Your task to perform on an android device: delete location history Image 0: 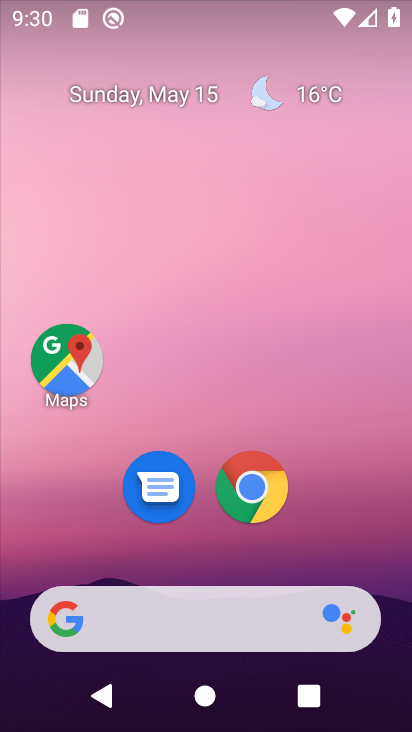
Step 0: drag from (323, 545) to (345, 47)
Your task to perform on an android device: delete location history Image 1: 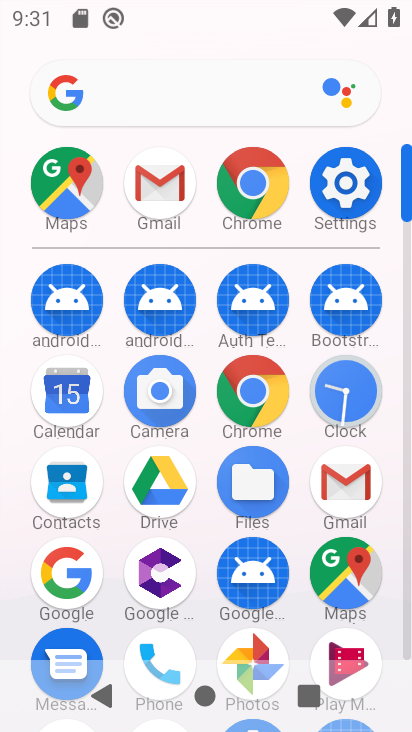
Step 1: click (331, 214)
Your task to perform on an android device: delete location history Image 2: 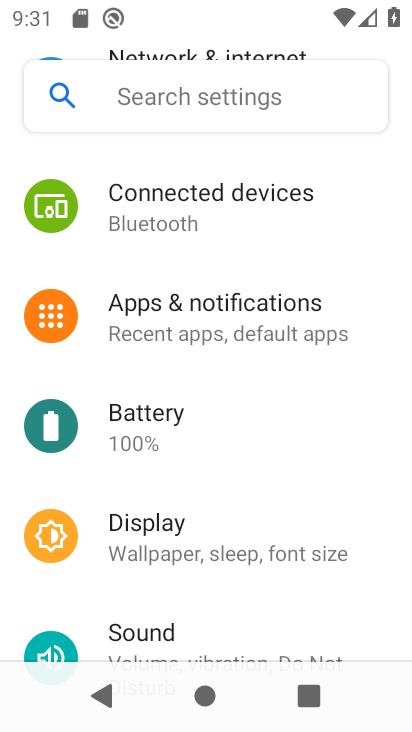
Step 2: drag from (325, 599) to (330, 296)
Your task to perform on an android device: delete location history Image 3: 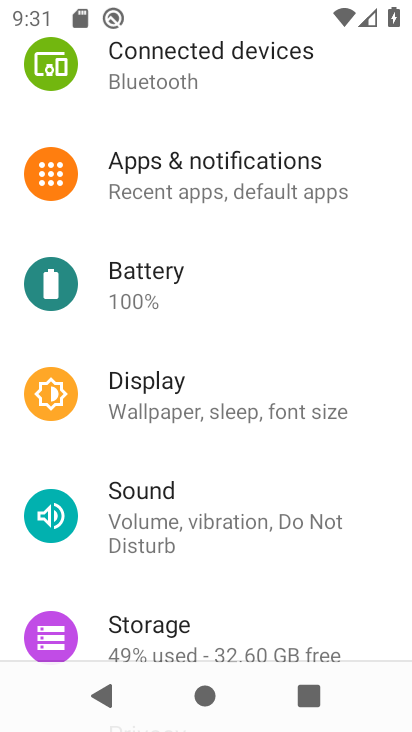
Step 3: drag from (329, 583) to (301, 309)
Your task to perform on an android device: delete location history Image 4: 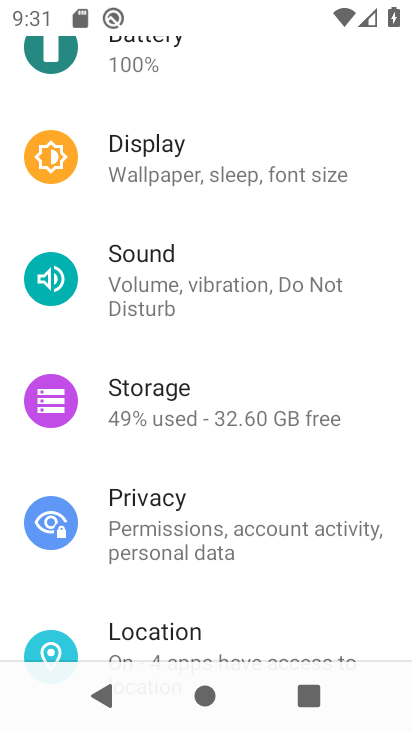
Step 4: drag from (351, 646) to (345, 260)
Your task to perform on an android device: delete location history Image 5: 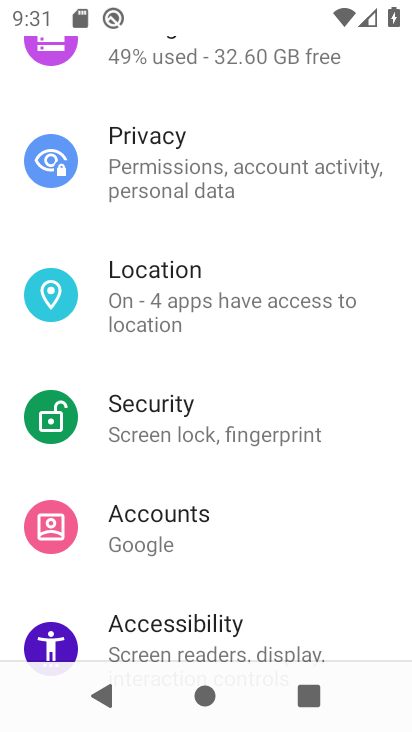
Step 5: click (322, 315)
Your task to perform on an android device: delete location history Image 6: 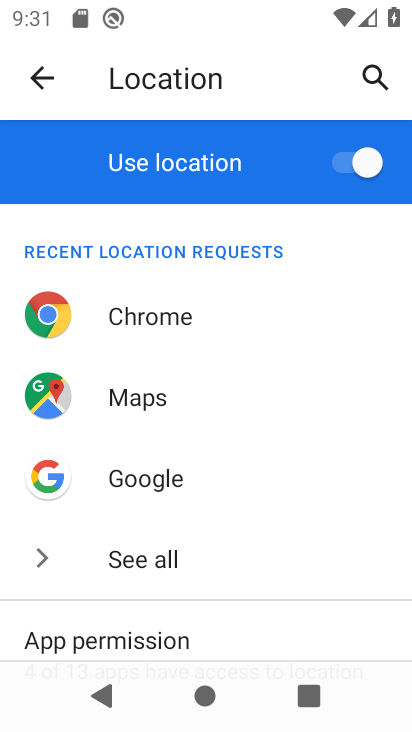
Step 6: drag from (286, 586) to (275, 336)
Your task to perform on an android device: delete location history Image 7: 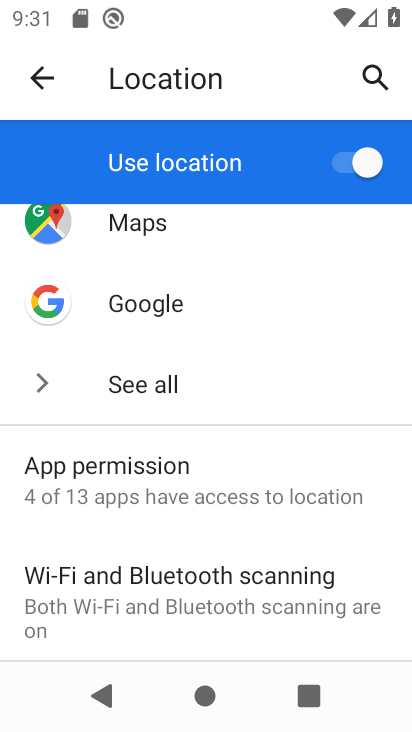
Step 7: drag from (275, 606) to (299, 180)
Your task to perform on an android device: delete location history Image 8: 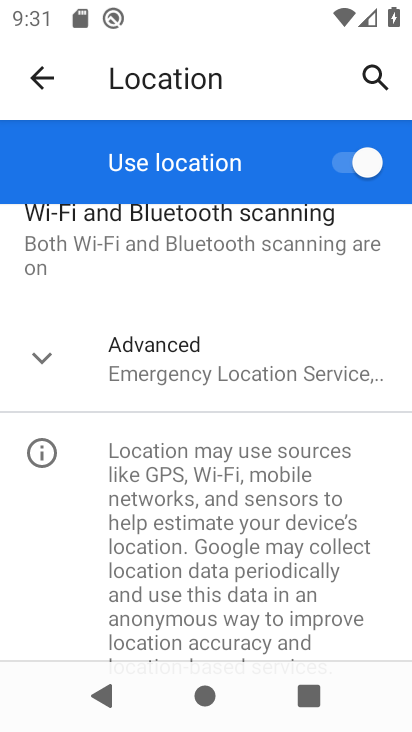
Step 8: click (273, 405)
Your task to perform on an android device: delete location history Image 9: 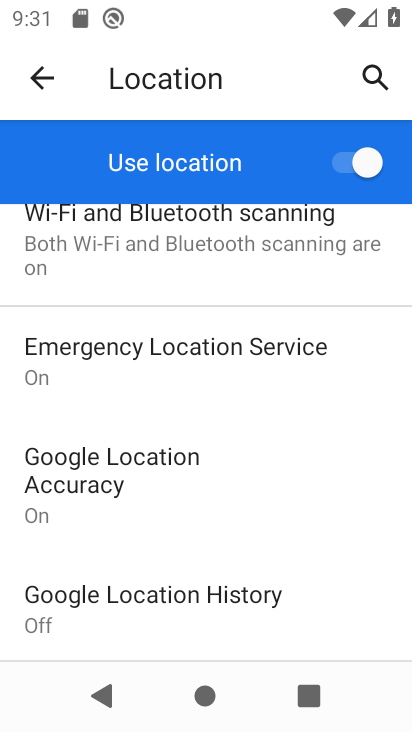
Step 9: drag from (293, 564) to (304, 280)
Your task to perform on an android device: delete location history Image 10: 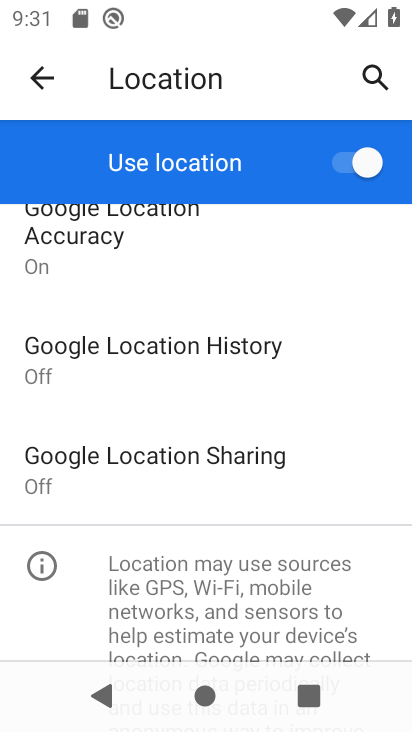
Step 10: click (207, 344)
Your task to perform on an android device: delete location history Image 11: 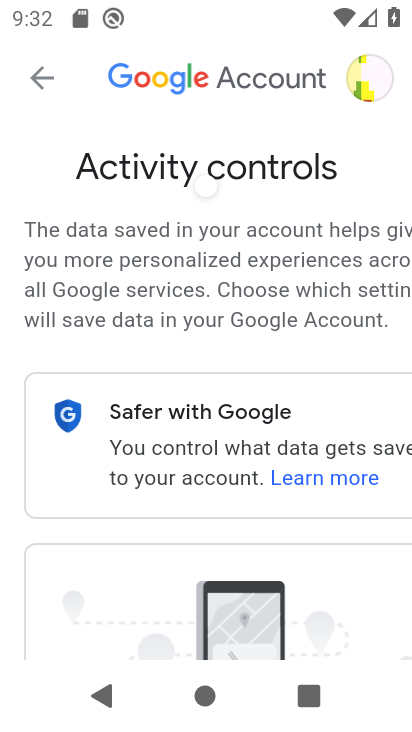
Step 11: drag from (323, 625) to (376, 213)
Your task to perform on an android device: delete location history Image 12: 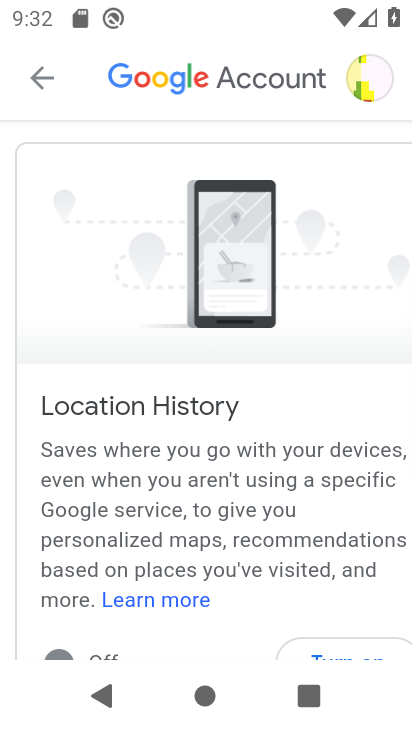
Step 12: drag from (362, 561) to (363, 222)
Your task to perform on an android device: delete location history Image 13: 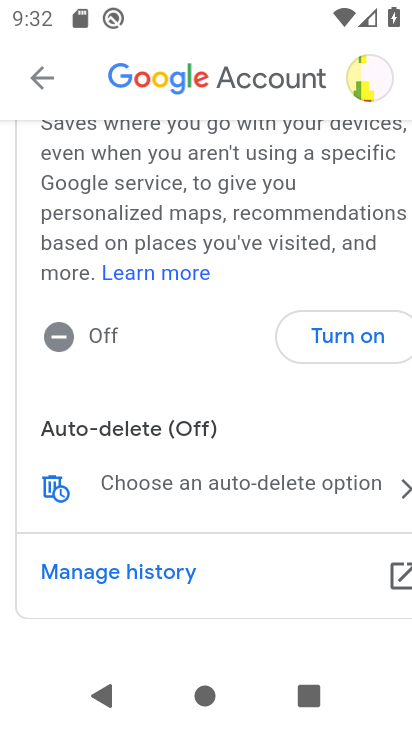
Step 13: drag from (287, 564) to (271, 241)
Your task to perform on an android device: delete location history Image 14: 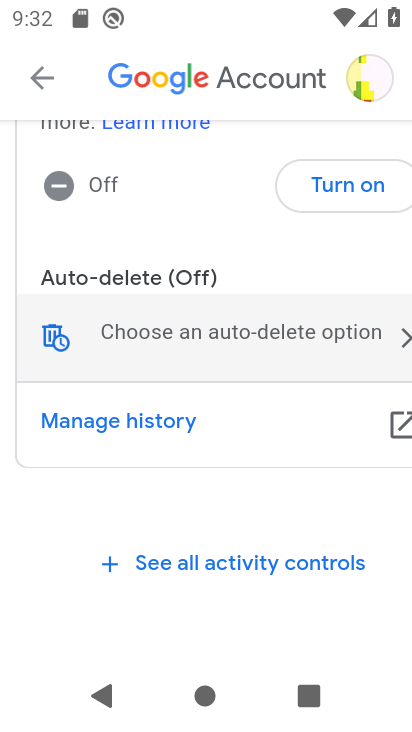
Step 14: drag from (269, 241) to (235, 535)
Your task to perform on an android device: delete location history Image 15: 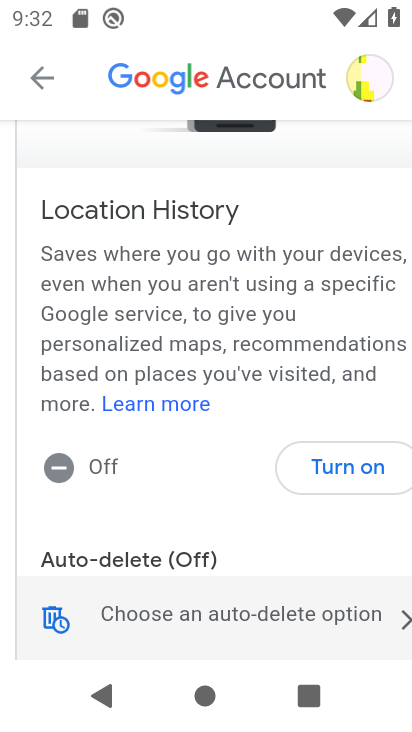
Step 15: drag from (167, 621) to (245, 353)
Your task to perform on an android device: delete location history Image 16: 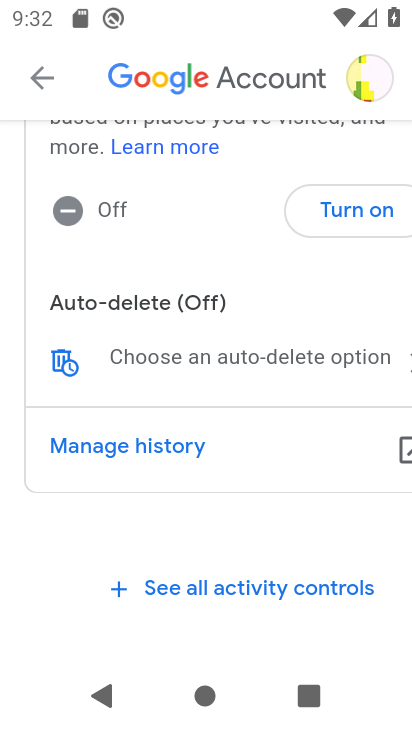
Step 16: click (147, 450)
Your task to perform on an android device: delete location history Image 17: 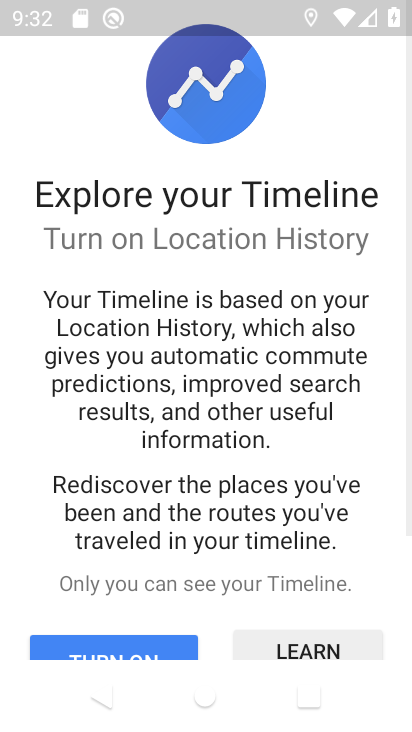
Step 17: drag from (188, 545) to (288, 149)
Your task to perform on an android device: delete location history Image 18: 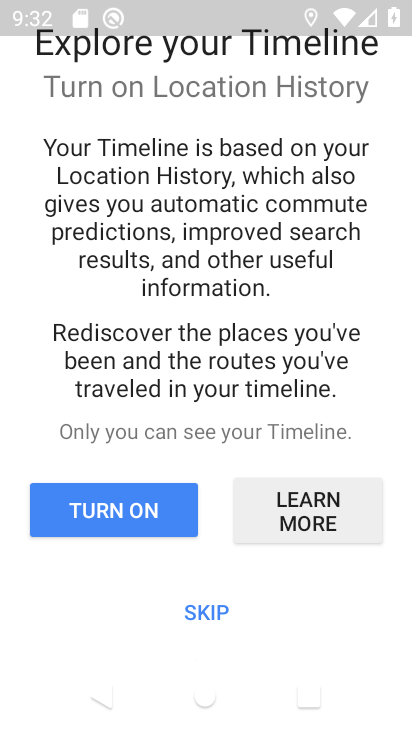
Step 18: click (206, 610)
Your task to perform on an android device: delete location history Image 19: 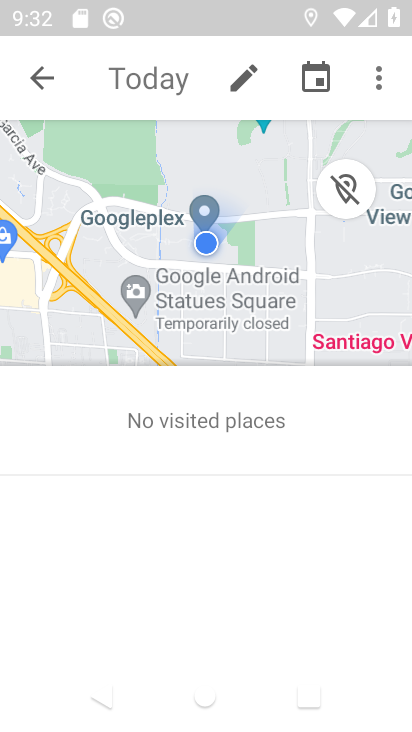
Step 19: drag from (380, 90) to (213, 522)
Your task to perform on an android device: delete location history Image 20: 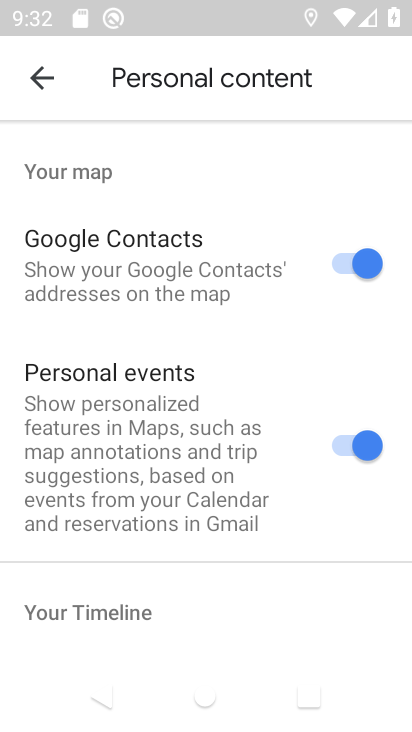
Step 20: drag from (182, 609) to (232, 205)
Your task to perform on an android device: delete location history Image 21: 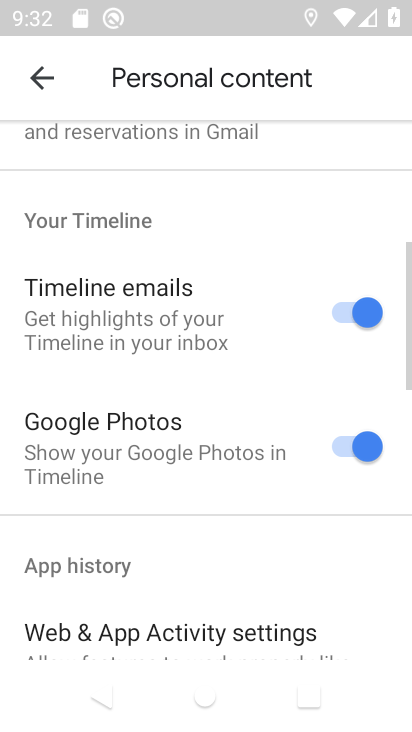
Step 21: drag from (200, 537) to (197, 244)
Your task to perform on an android device: delete location history Image 22: 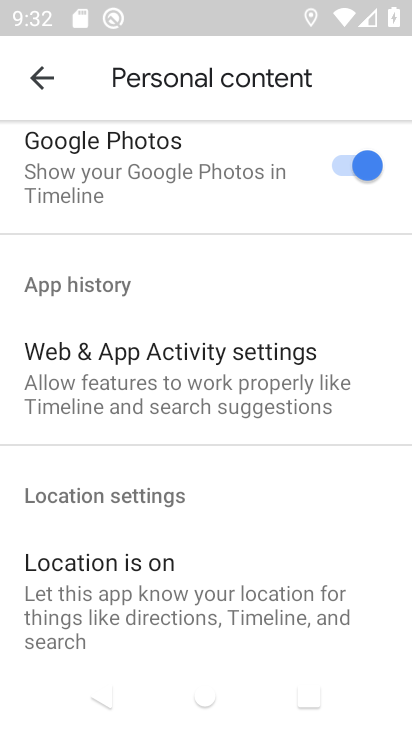
Step 22: drag from (249, 481) to (257, 169)
Your task to perform on an android device: delete location history Image 23: 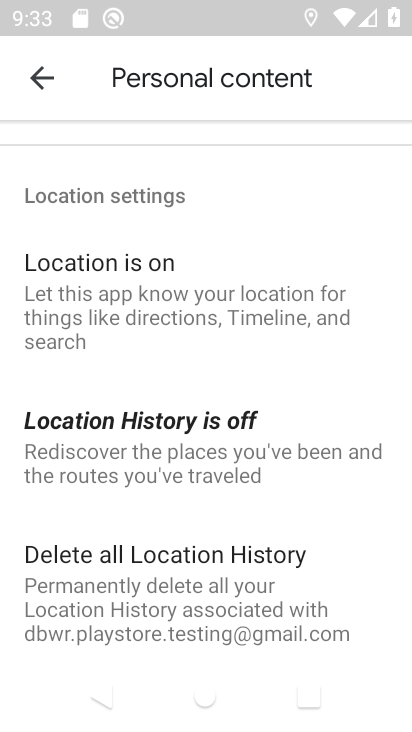
Step 23: drag from (311, 594) to (310, 473)
Your task to perform on an android device: delete location history Image 24: 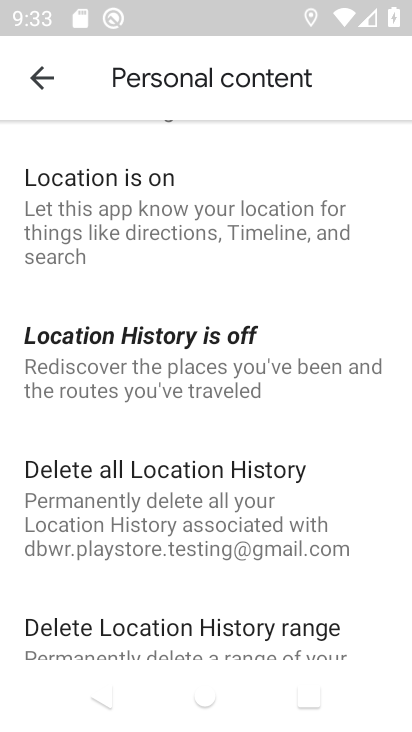
Step 24: click (238, 491)
Your task to perform on an android device: delete location history Image 25: 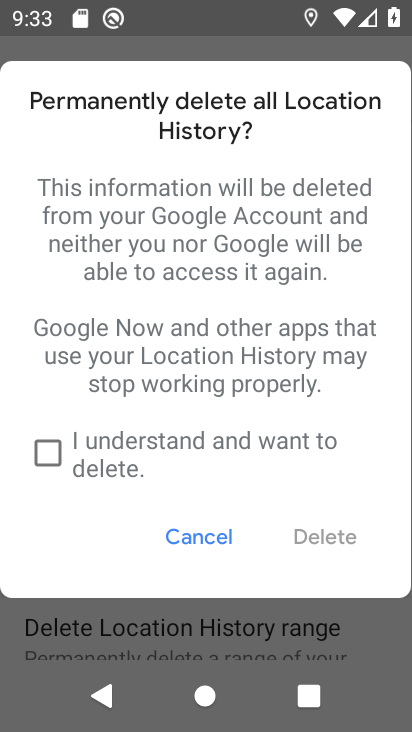
Step 25: click (26, 458)
Your task to perform on an android device: delete location history Image 26: 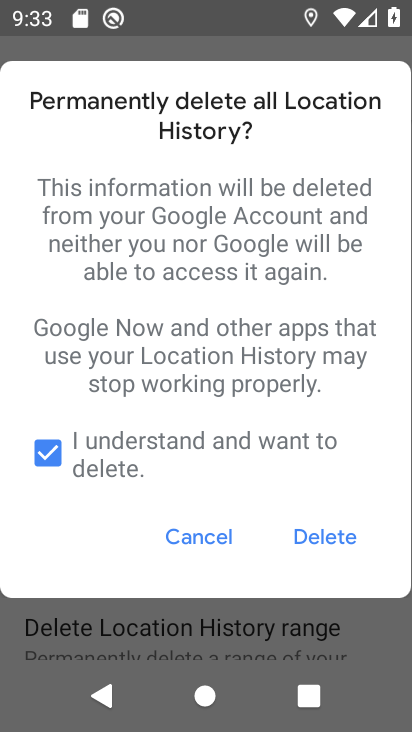
Step 26: click (332, 532)
Your task to perform on an android device: delete location history Image 27: 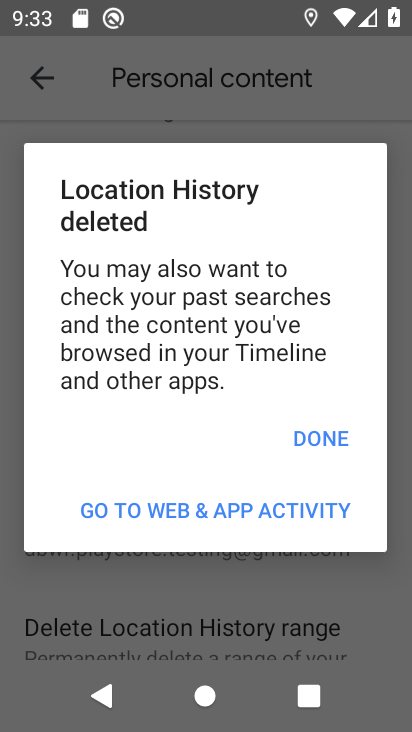
Step 27: click (331, 433)
Your task to perform on an android device: delete location history Image 28: 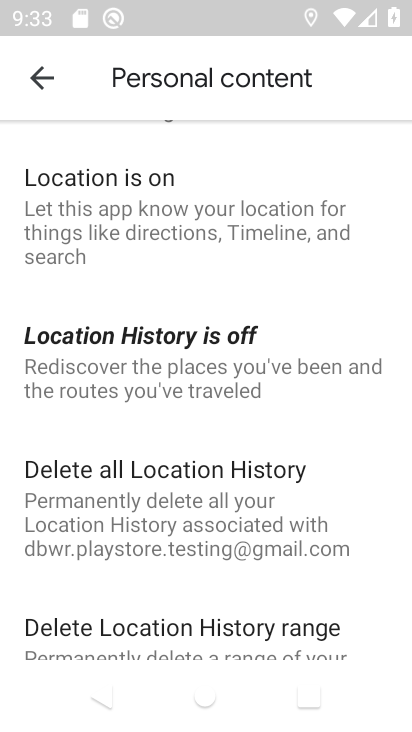
Step 28: task complete